Your task to perform on an android device: Do I have any events today? Image 0: 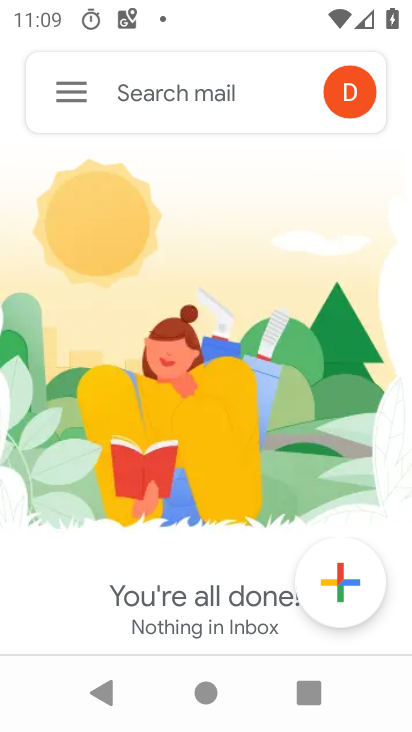
Step 0: press home button
Your task to perform on an android device: Do I have any events today? Image 1: 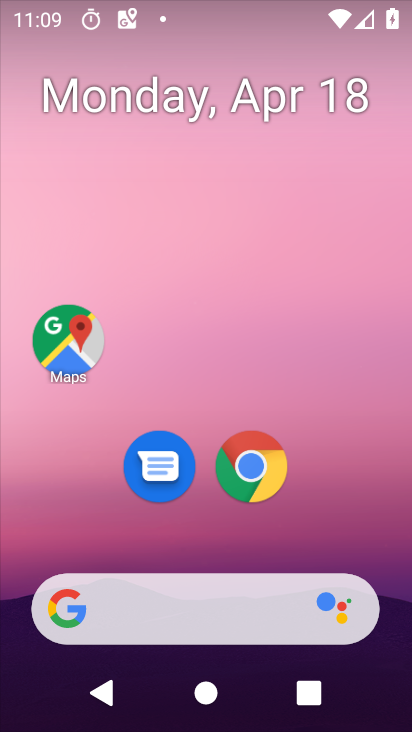
Step 1: drag from (211, 417) to (258, 134)
Your task to perform on an android device: Do I have any events today? Image 2: 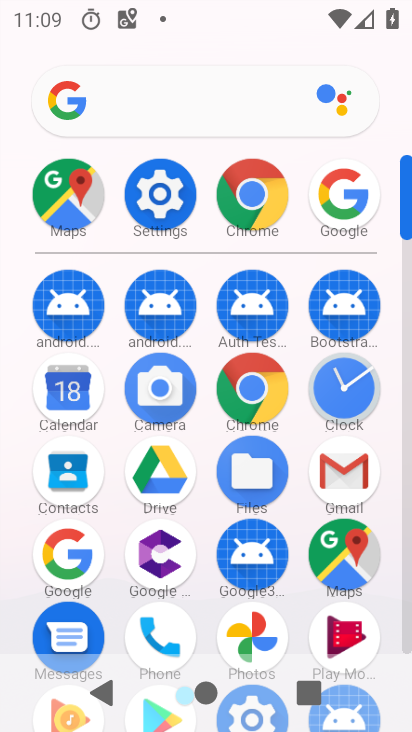
Step 2: click (401, 454)
Your task to perform on an android device: Do I have any events today? Image 3: 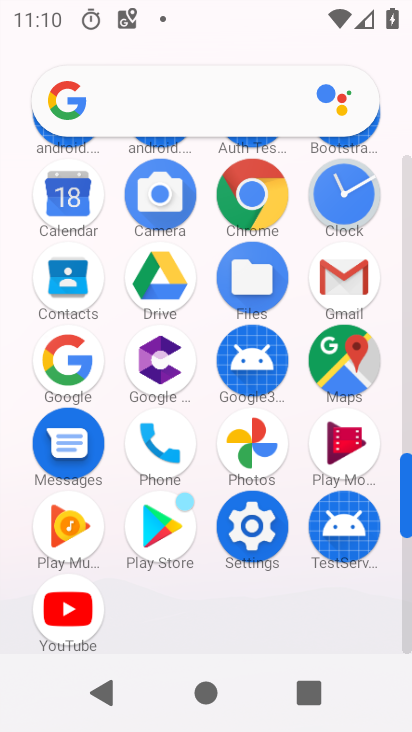
Step 3: click (87, 214)
Your task to perform on an android device: Do I have any events today? Image 4: 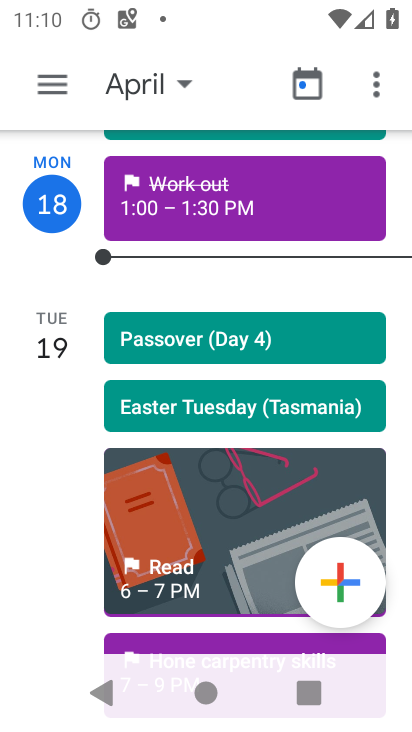
Step 4: click (186, 87)
Your task to perform on an android device: Do I have any events today? Image 5: 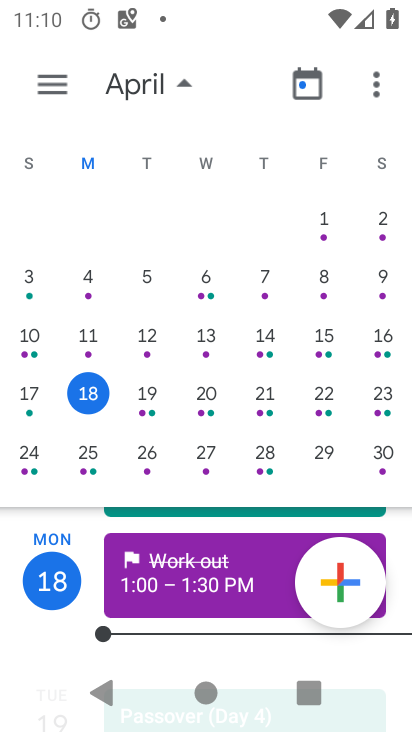
Step 5: task complete